Your task to perform on an android device: open the mobile data screen to see how much data has been used Image 0: 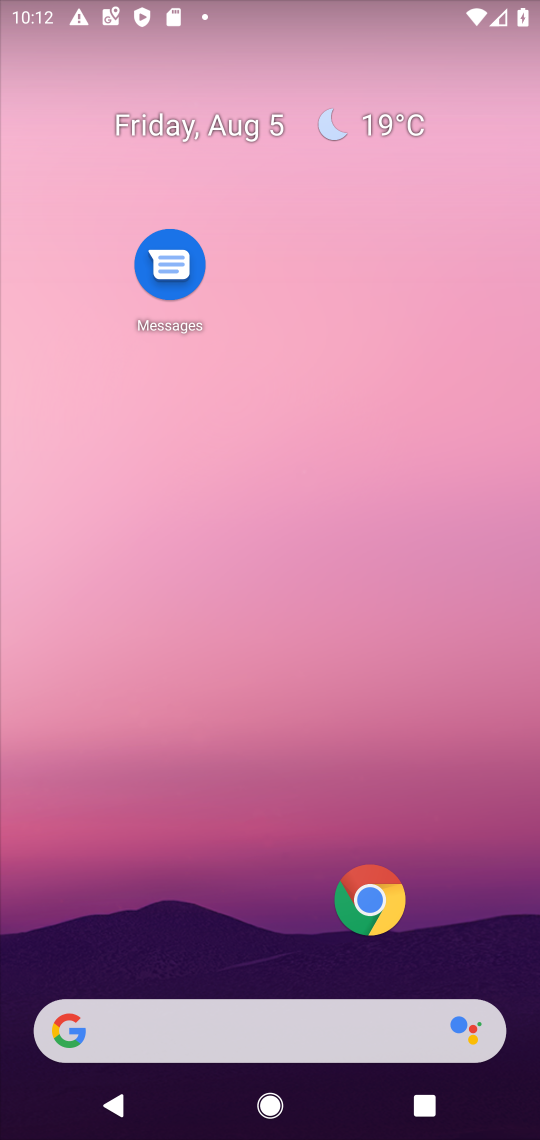
Step 0: drag from (363, 6) to (382, 773)
Your task to perform on an android device: open the mobile data screen to see how much data has been used Image 1: 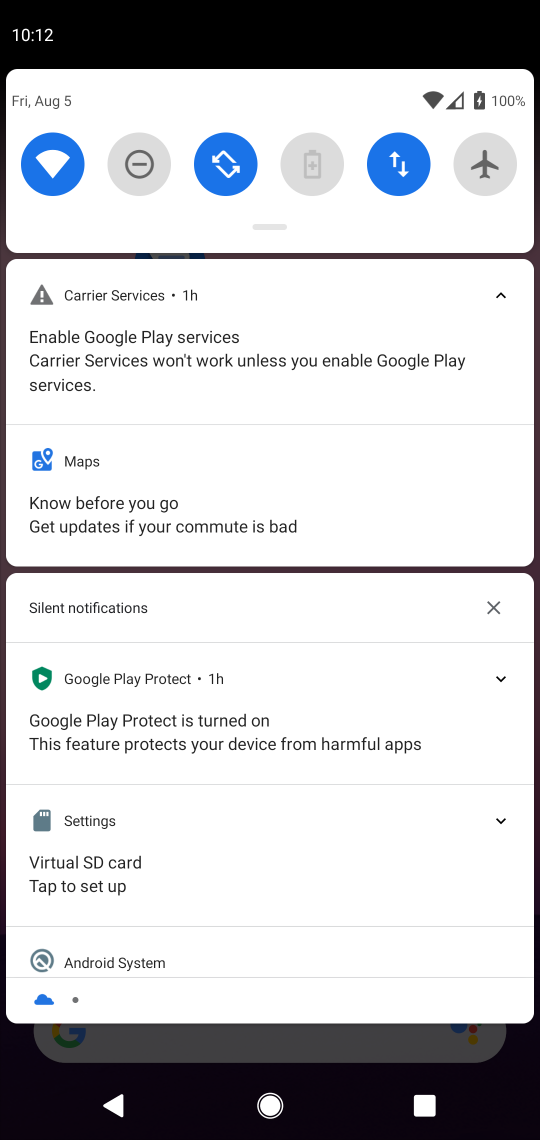
Step 1: click (393, 151)
Your task to perform on an android device: open the mobile data screen to see how much data has been used Image 2: 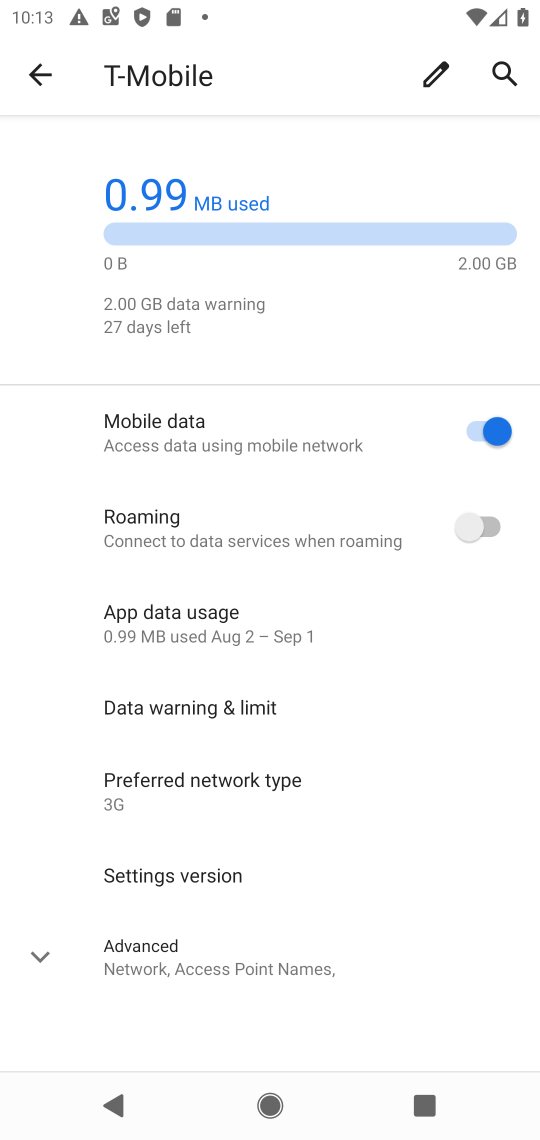
Step 2: task complete